Your task to perform on an android device: turn on airplane mode Image 0: 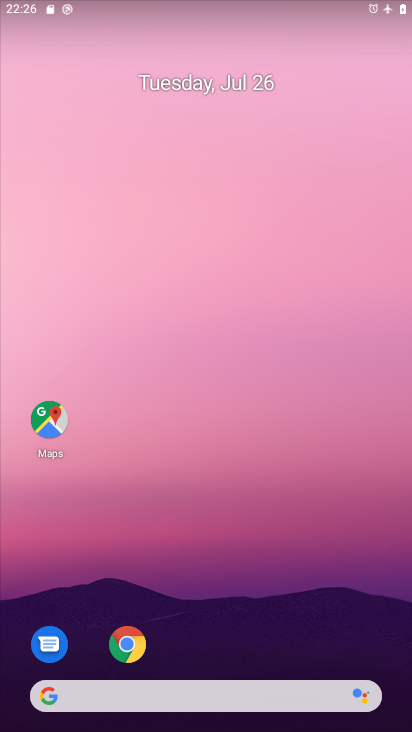
Step 0: drag from (240, 484) to (244, 264)
Your task to perform on an android device: turn on airplane mode Image 1: 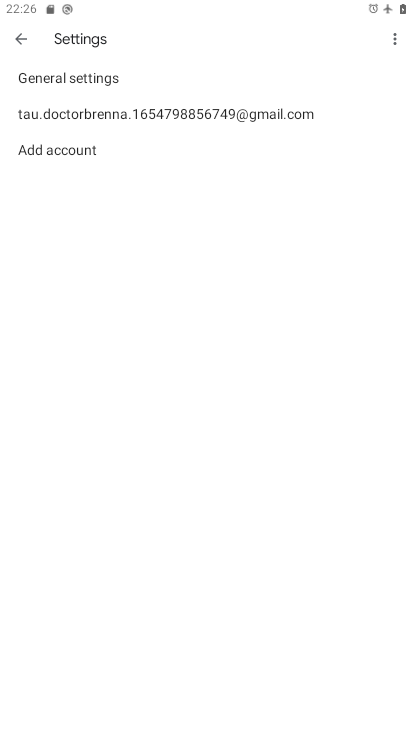
Step 1: press home button
Your task to perform on an android device: turn on airplane mode Image 2: 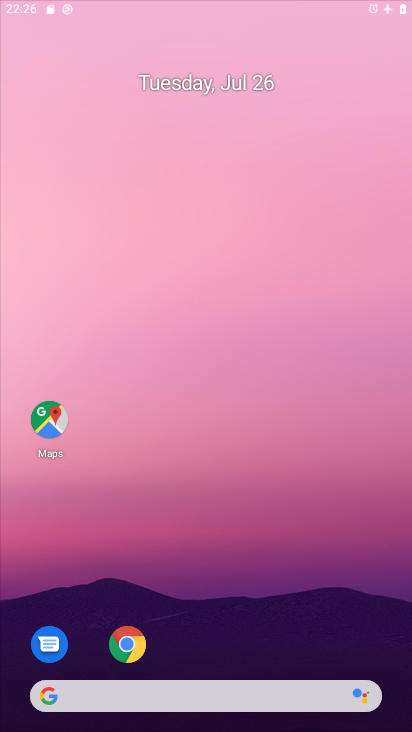
Step 2: drag from (157, 639) to (176, 453)
Your task to perform on an android device: turn on airplane mode Image 3: 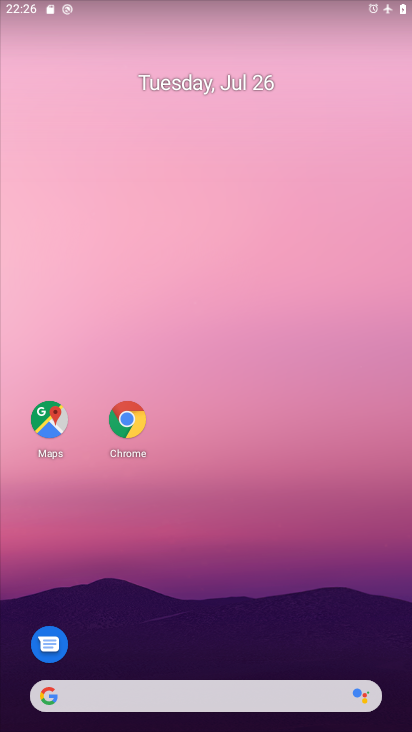
Step 3: drag from (195, 637) to (219, 56)
Your task to perform on an android device: turn on airplane mode Image 4: 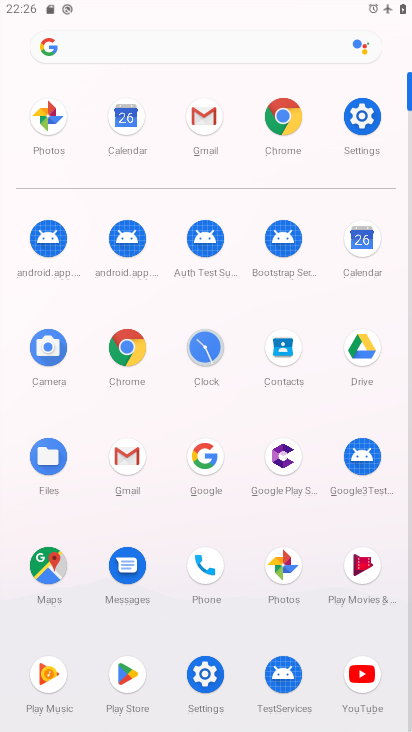
Step 4: click (349, 113)
Your task to perform on an android device: turn on airplane mode Image 5: 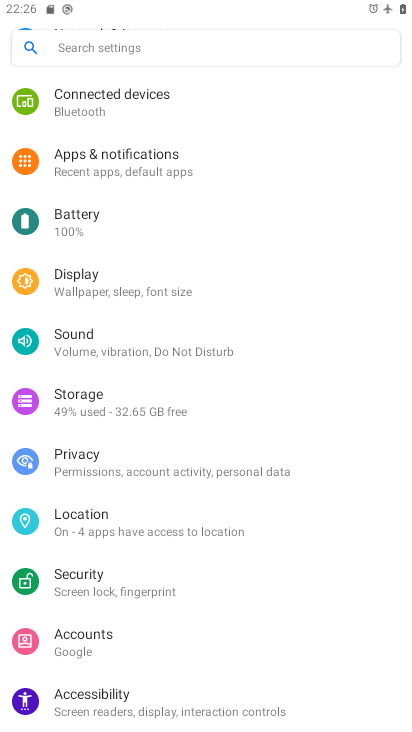
Step 5: drag from (145, 157) to (151, 589)
Your task to perform on an android device: turn on airplane mode Image 6: 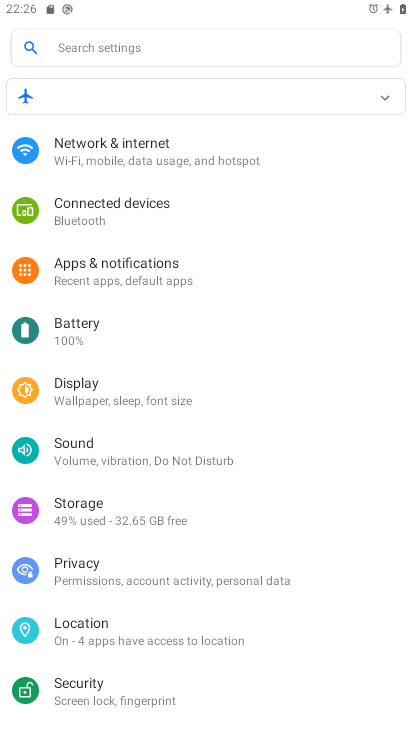
Step 6: click (131, 149)
Your task to perform on an android device: turn on airplane mode Image 7: 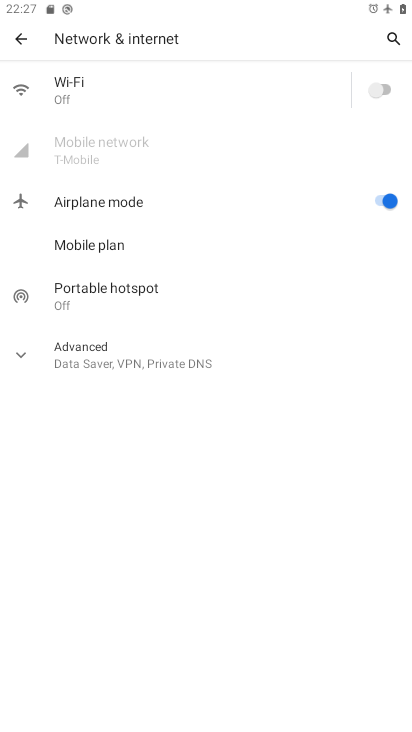
Step 7: task complete